Your task to perform on an android device: delete location history Image 0: 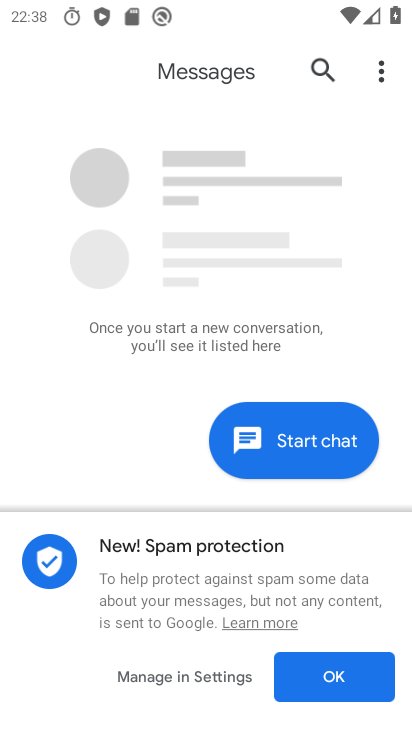
Step 0: press home button
Your task to perform on an android device: delete location history Image 1: 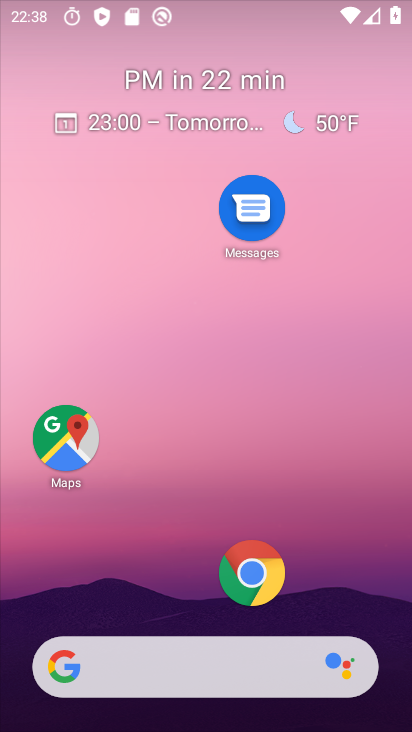
Step 1: drag from (172, 582) to (269, 3)
Your task to perform on an android device: delete location history Image 2: 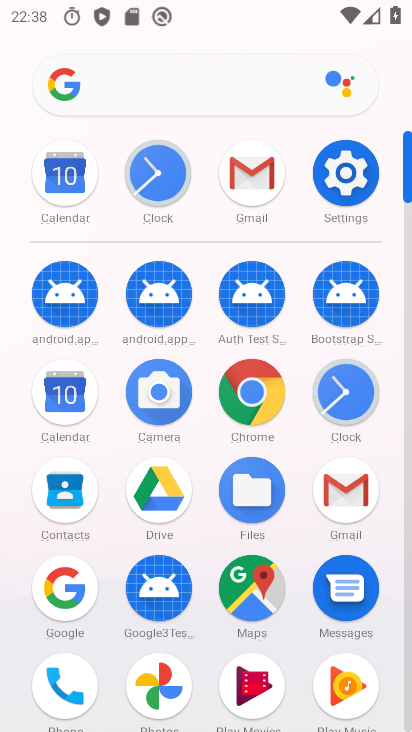
Step 2: click (345, 172)
Your task to perform on an android device: delete location history Image 3: 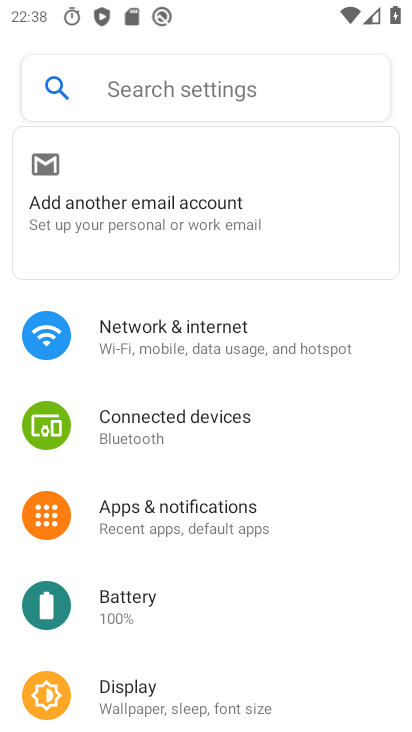
Step 3: drag from (281, 605) to (302, 95)
Your task to perform on an android device: delete location history Image 4: 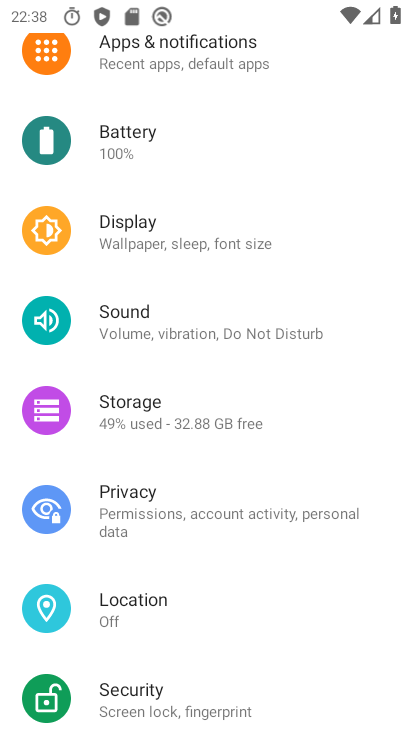
Step 4: click (135, 605)
Your task to perform on an android device: delete location history Image 5: 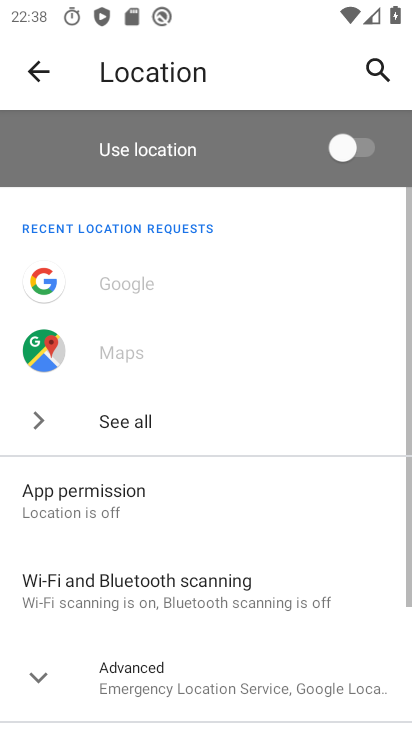
Step 5: drag from (291, 555) to (287, 240)
Your task to perform on an android device: delete location history Image 6: 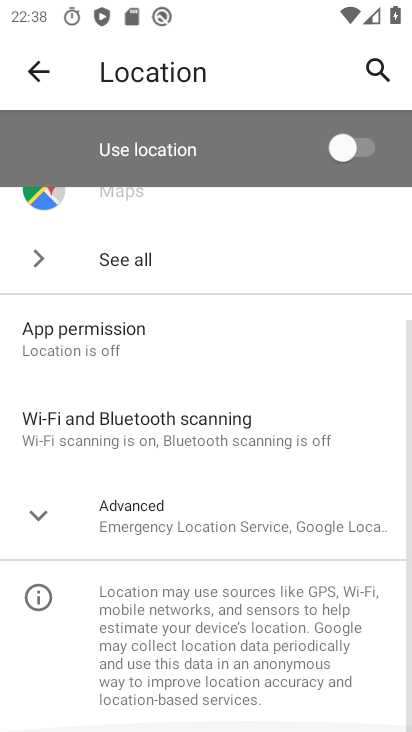
Step 6: click (161, 550)
Your task to perform on an android device: delete location history Image 7: 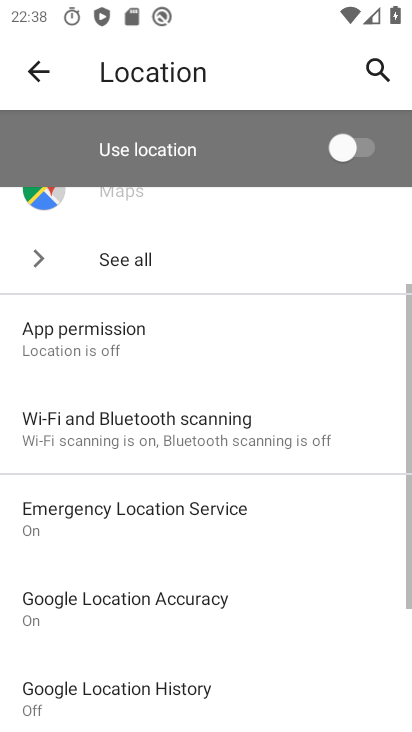
Step 7: drag from (302, 665) to (296, 430)
Your task to perform on an android device: delete location history Image 8: 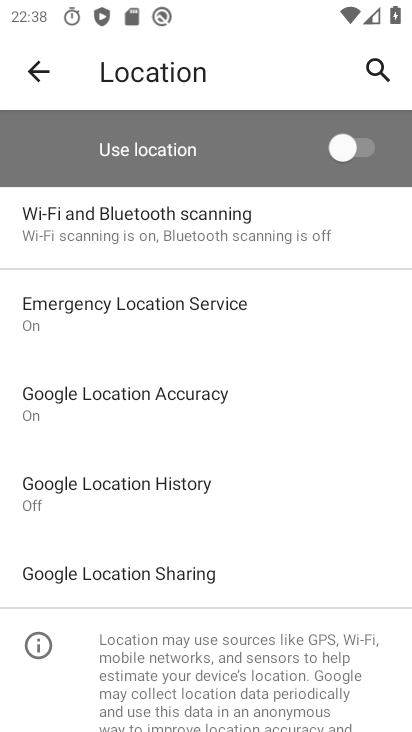
Step 8: click (103, 487)
Your task to perform on an android device: delete location history Image 9: 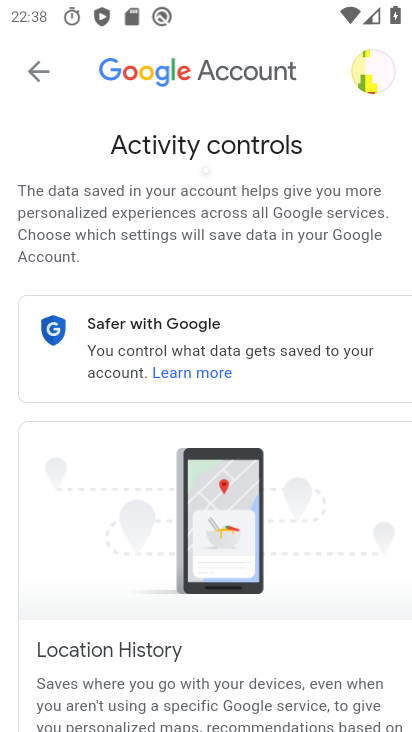
Step 9: drag from (296, 593) to (330, 64)
Your task to perform on an android device: delete location history Image 10: 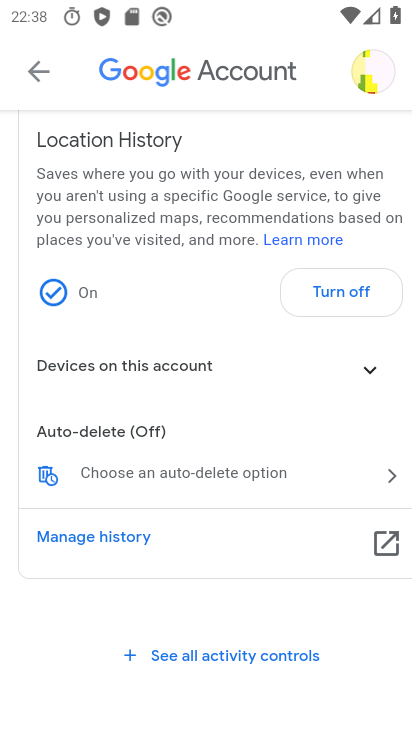
Step 10: click (52, 473)
Your task to perform on an android device: delete location history Image 11: 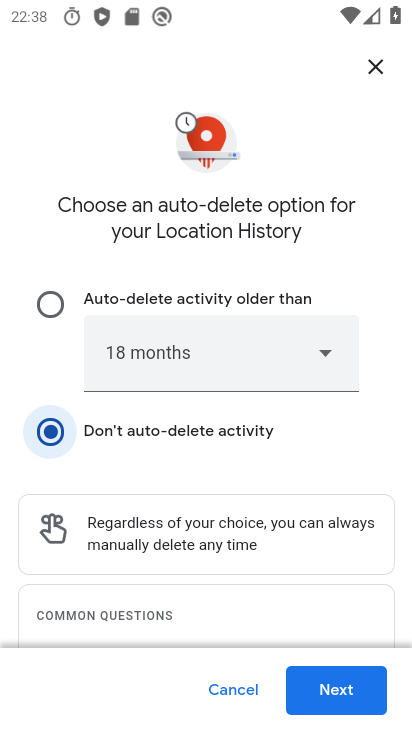
Step 11: click (334, 696)
Your task to perform on an android device: delete location history Image 12: 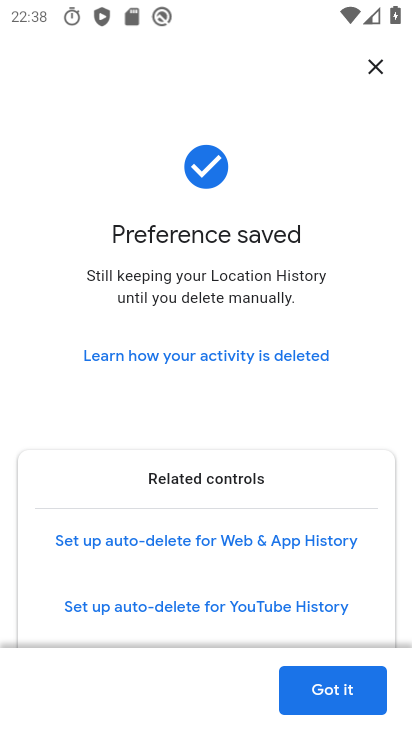
Step 12: task complete